Your task to perform on an android device: Open Android settings Image 0: 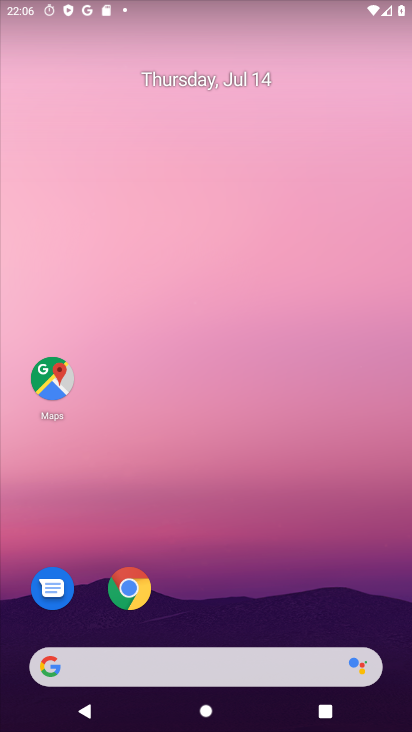
Step 0: drag from (214, 558) to (287, 95)
Your task to perform on an android device: Open Android settings Image 1: 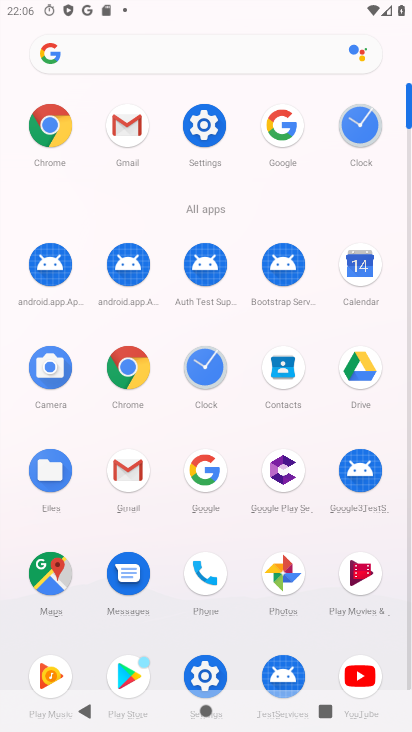
Step 1: click (206, 125)
Your task to perform on an android device: Open Android settings Image 2: 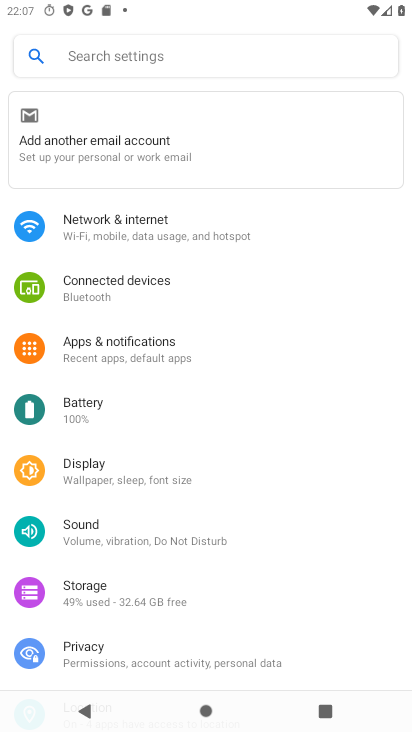
Step 2: task complete